Your task to perform on an android device: open app "Yahoo Mail" (install if not already installed) Image 0: 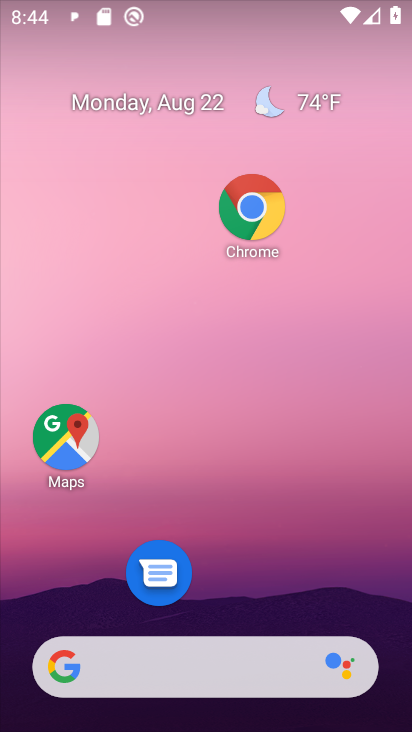
Step 0: drag from (238, 600) to (267, 3)
Your task to perform on an android device: open app "Yahoo Mail" (install if not already installed) Image 1: 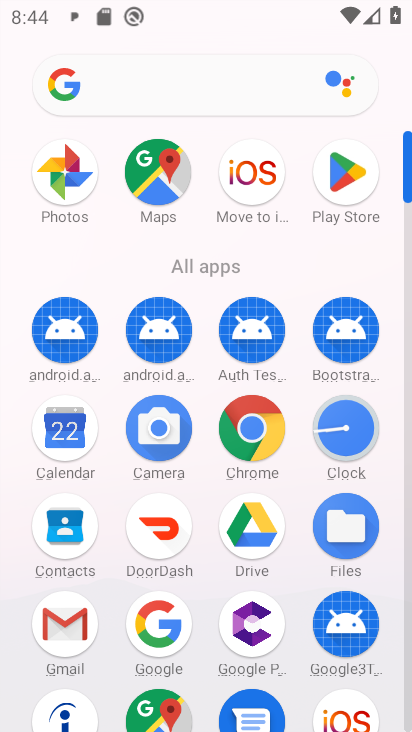
Step 1: click (348, 182)
Your task to perform on an android device: open app "Yahoo Mail" (install if not already installed) Image 2: 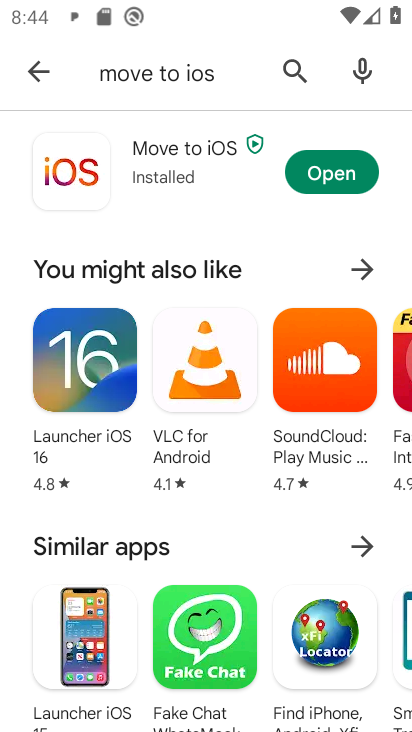
Step 2: click (178, 67)
Your task to perform on an android device: open app "Yahoo Mail" (install if not already installed) Image 3: 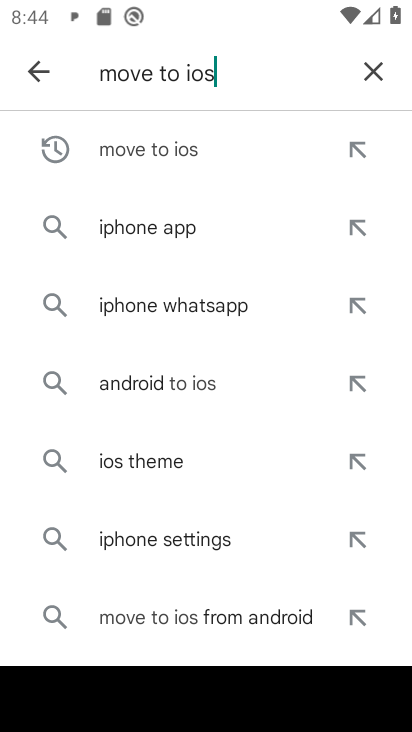
Step 3: click (380, 66)
Your task to perform on an android device: open app "Yahoo Mail" (install if not already installed) Image 4: 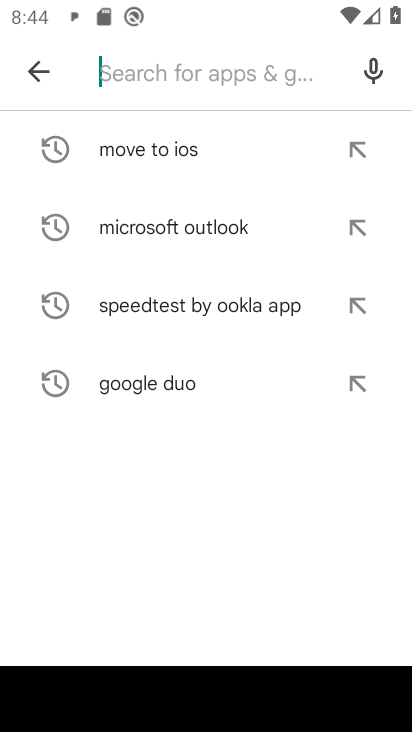
Step 4: type "yahoo mIal"
Your task to perform on an android device: open app "Yahoo Mail" (install if not already installed) Image 5: 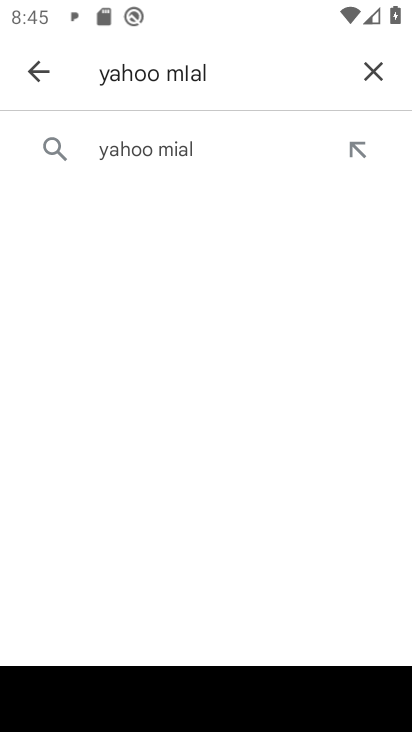
Step 5: click (184, 72)
Your task to perform on an android device: open app "Yahoo Mail" (install if not already installed) Image 6: 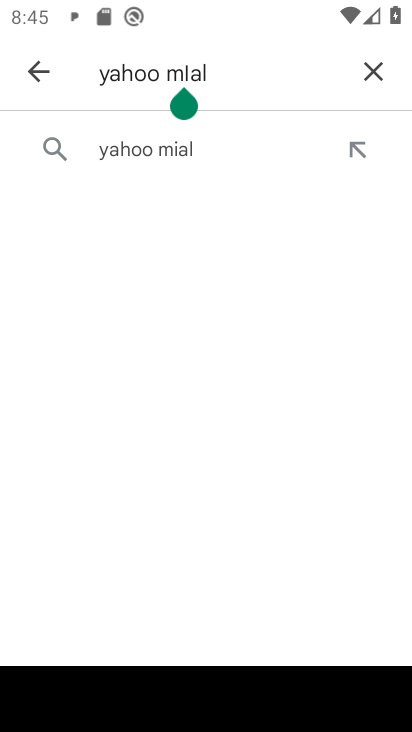
Step 6: click (193, 72)
Your task to perform on an android device: open app "Yahoo Mail" (install if not already installed) Image 7: 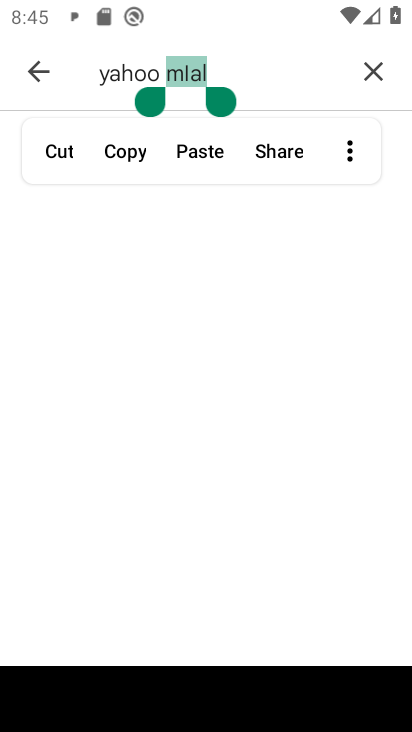
Step 7: type "mail"
Your task to perform on an android device: open app "Yahoo Mail" (install if not already installed) Image 8: 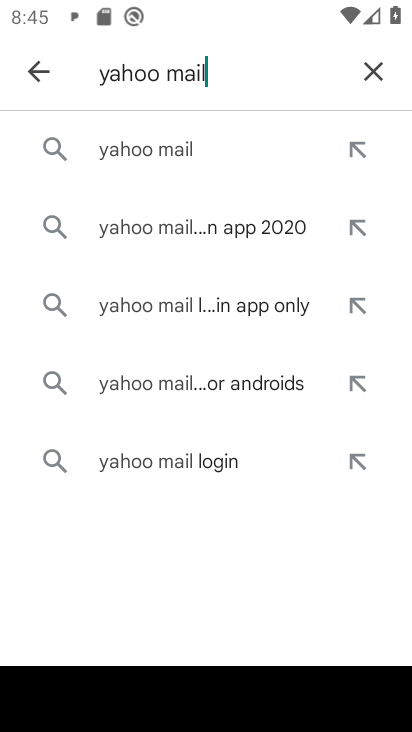
Step 8: click (165, 151)
Your task to perform on an android device: open app "Yahoo Mail" (install if not already installed) Image 9: 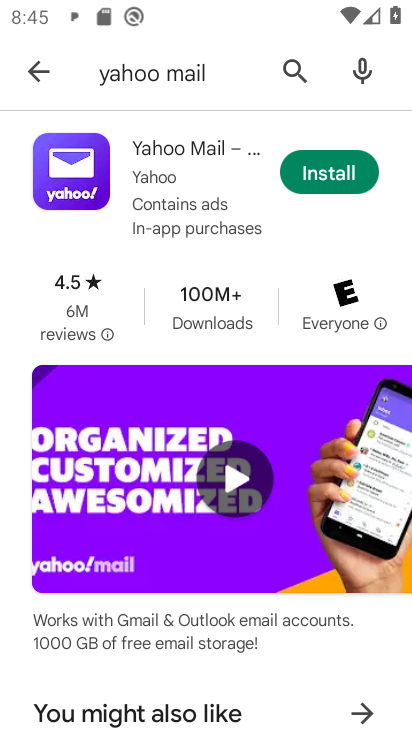
Step 9: click (334, 164)
Your task to perform on an android device: open app "Yahoo Mail" (install if not already installed) Image 10: 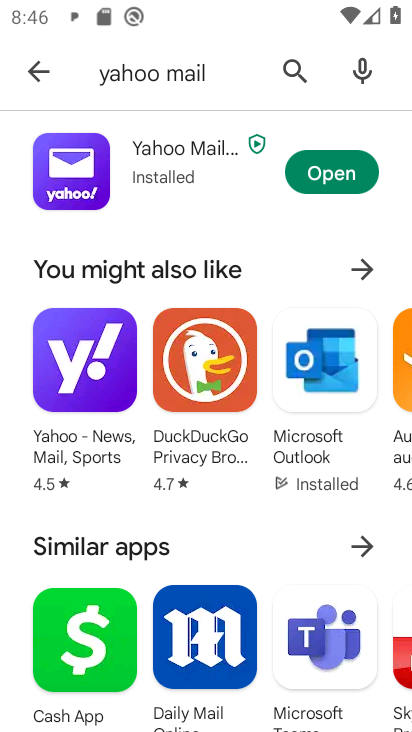
Step 10: click (336, 172)
Your task to perform on an android device: open app "Yahoo Mail" (install if not already installed) Image 11: 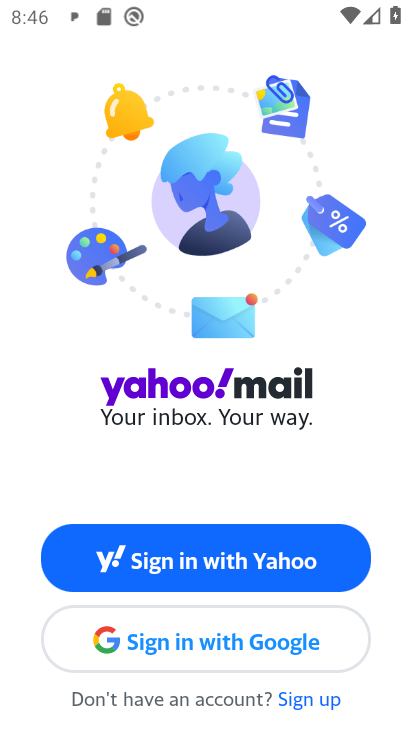
Step 11: click (309, 707)
Your task to perform on an android device: open app "Yahoo Mail" (install if not already installed) Image 12: 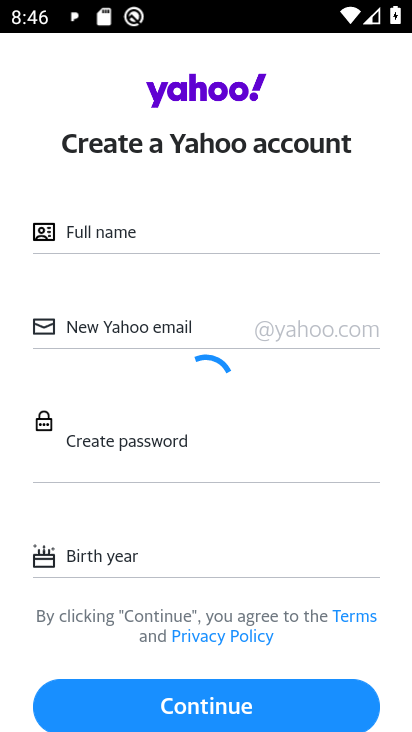
Step 12: task complete